Your task to perform on an android device: Show the shopping cart on newegg.com. Search for asus zenbook on newegg.com, select the first entry, add it to the cart, then select checkout. Image 0: 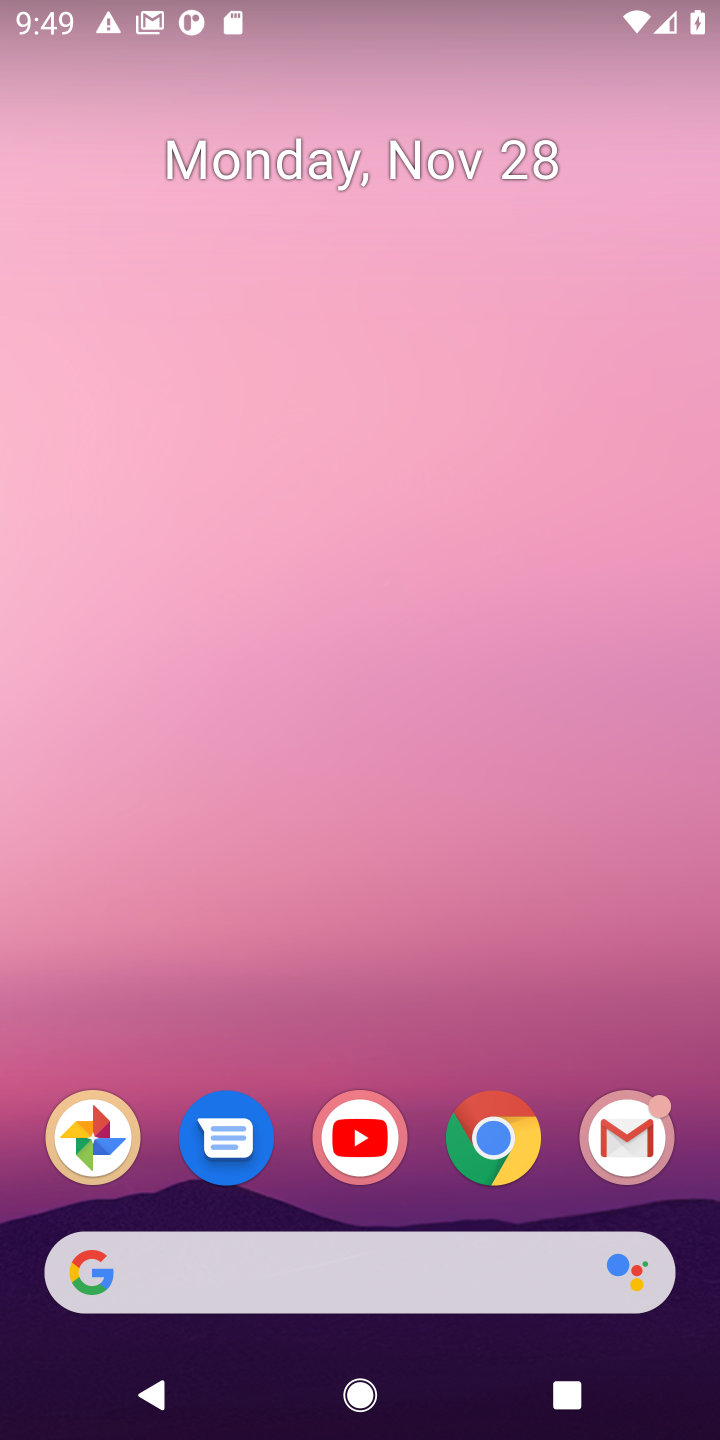
Step 0: click (507, 1143)
Your task to perform on an android device: Show the shopping cart on newegg.com. Search for asus zenbook on newegg.com, select the first entry, add it to the cart, then select checkout. Image 1: 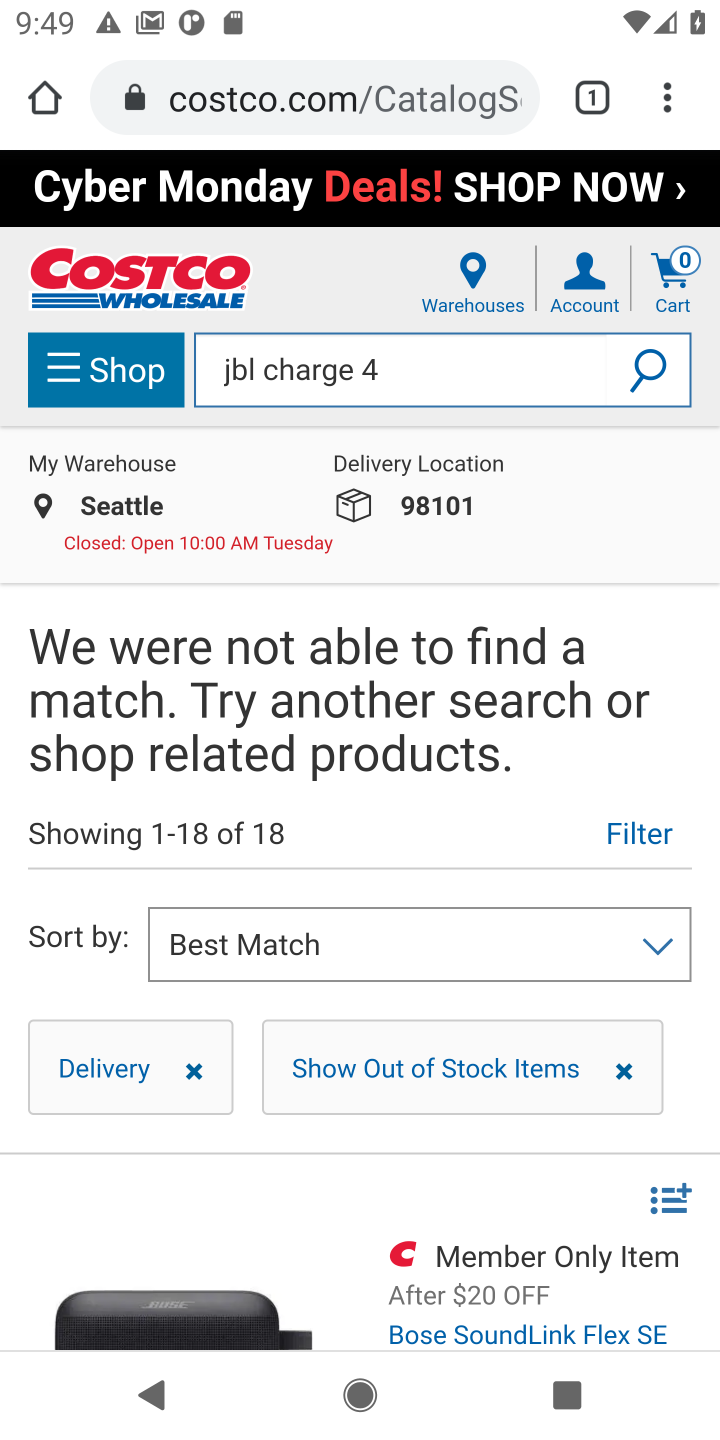
Step 1: click (277, 111)
Your task to perform on an android device: Show the shopping cart on newegg.com. Search for asus zenbook on newegg.com, select the first entry, add it to the cart, then select checkout. Image 2: 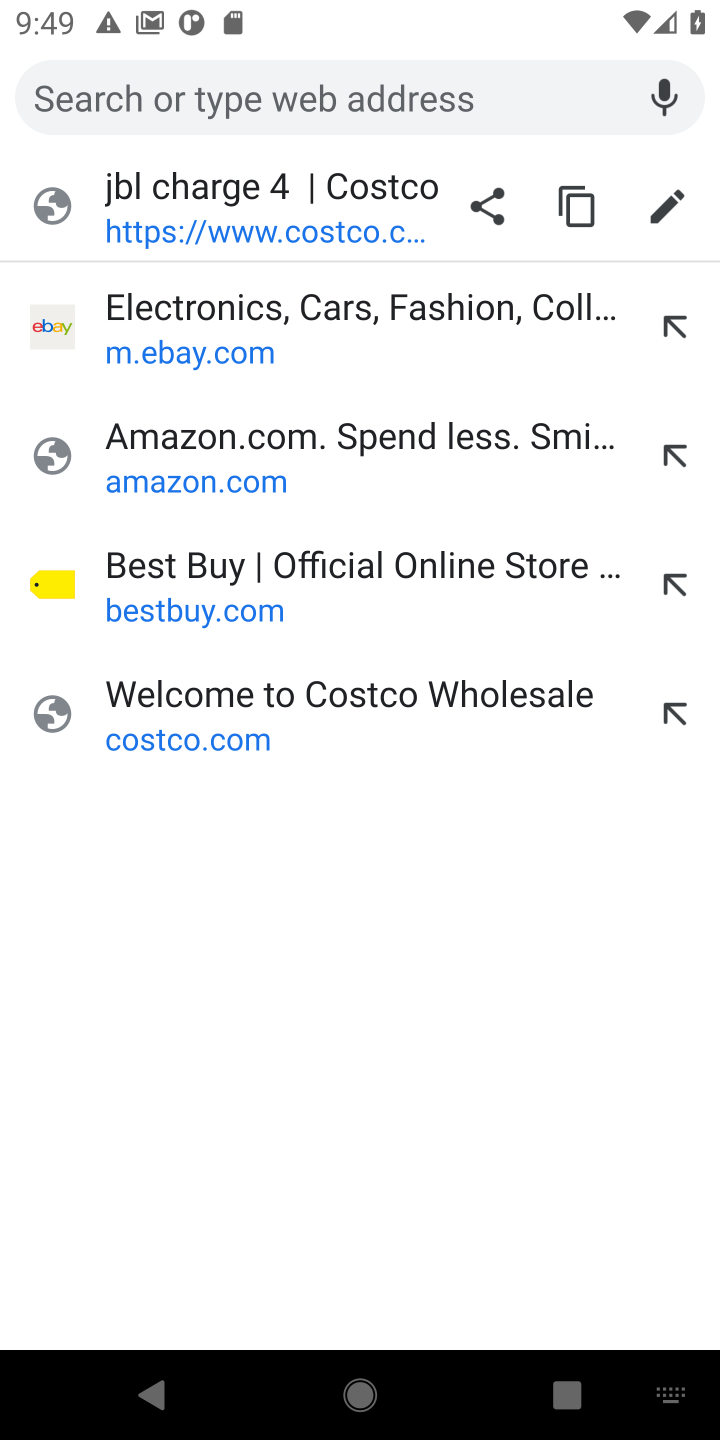
Step 2: type "newegg.com"
Your task to perform on an android device: Show the shopping cart on newegg.com. Search for asus zenbook on newegg.com, select the first entry, add it to the cart, then select checkout. Image 3: 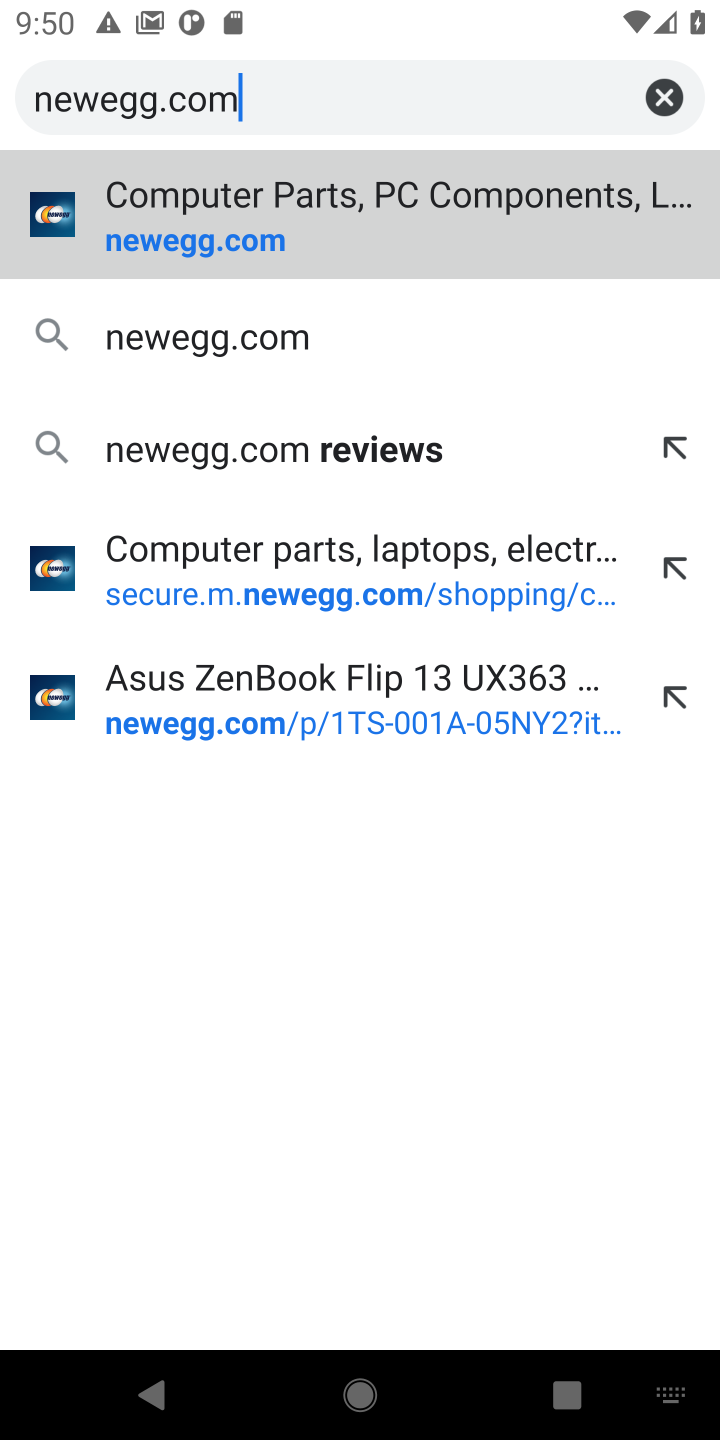
Step 3: click (138, 223)
Your task to perform on an android device: Show the shopping cart on newegg.com. Search for asus zenbook on newegg.com, select the first entry, add it to the cart, then select checkout. Image 4: 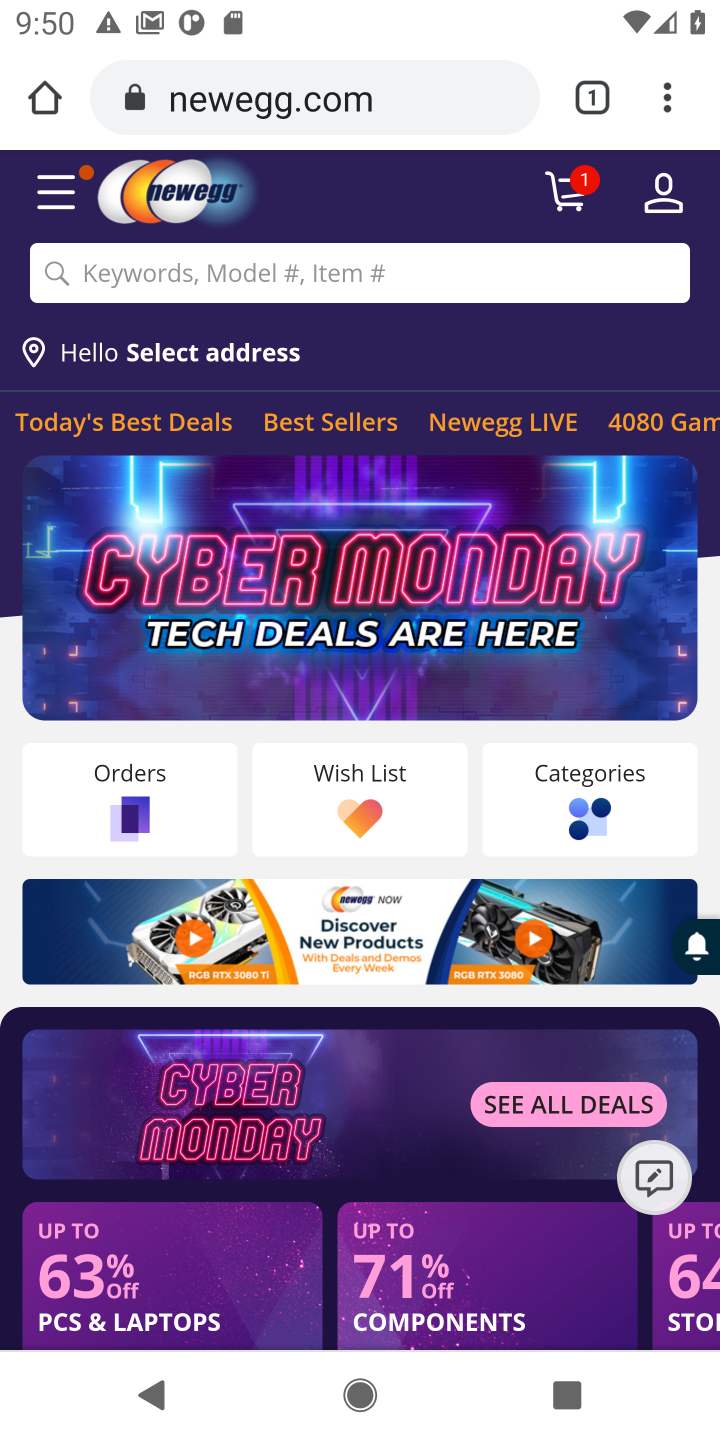
Step 4: click (562, 192)
Your task to perform on an android device: Show the shopping cart on newegg.com. Search for asus zenbook on newegg.com, select the first entry, add it to the cart, then select checkout. Image 5: 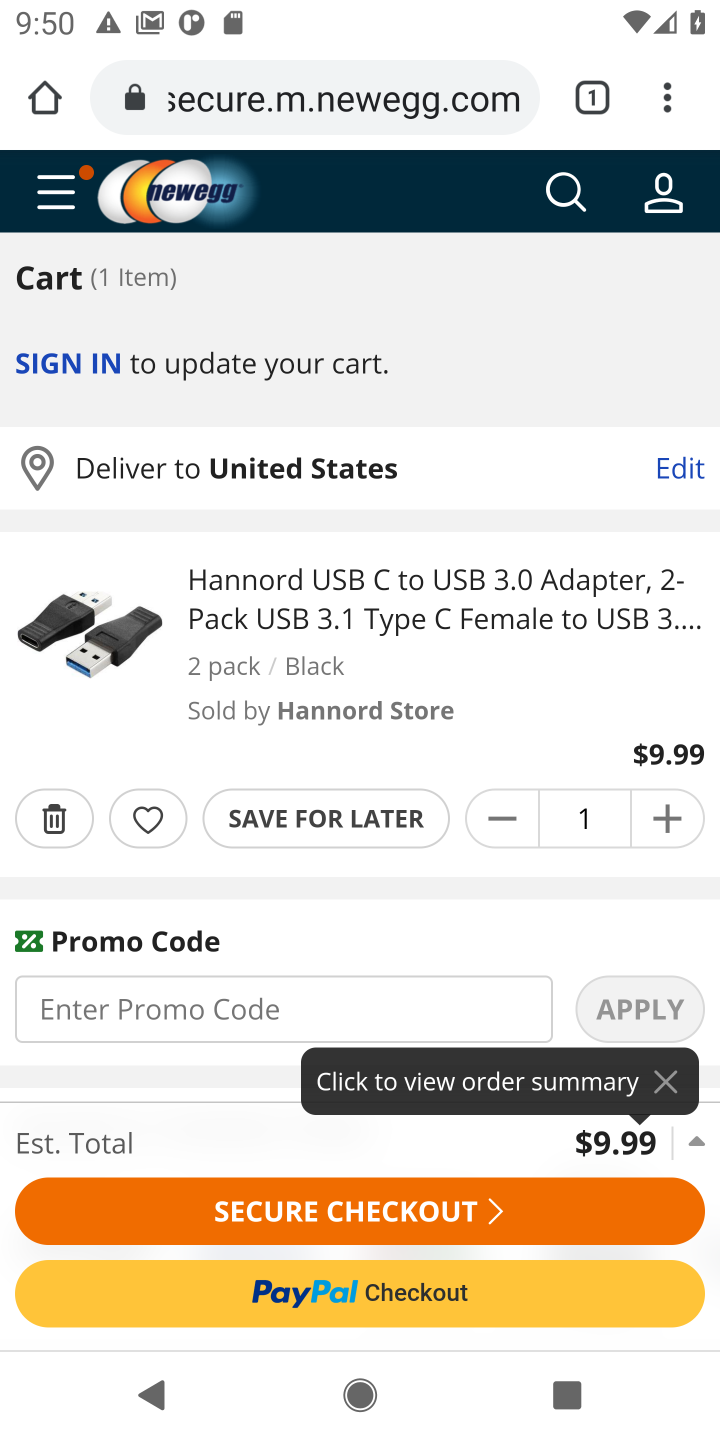
Step 5: click (550, 192)
Your task to perform on an android device: Show the shopping cart on newegg.com. Search for asus zenbook on newegg.com, select the first entry, add it to the cart, then select checkout. Image 6: 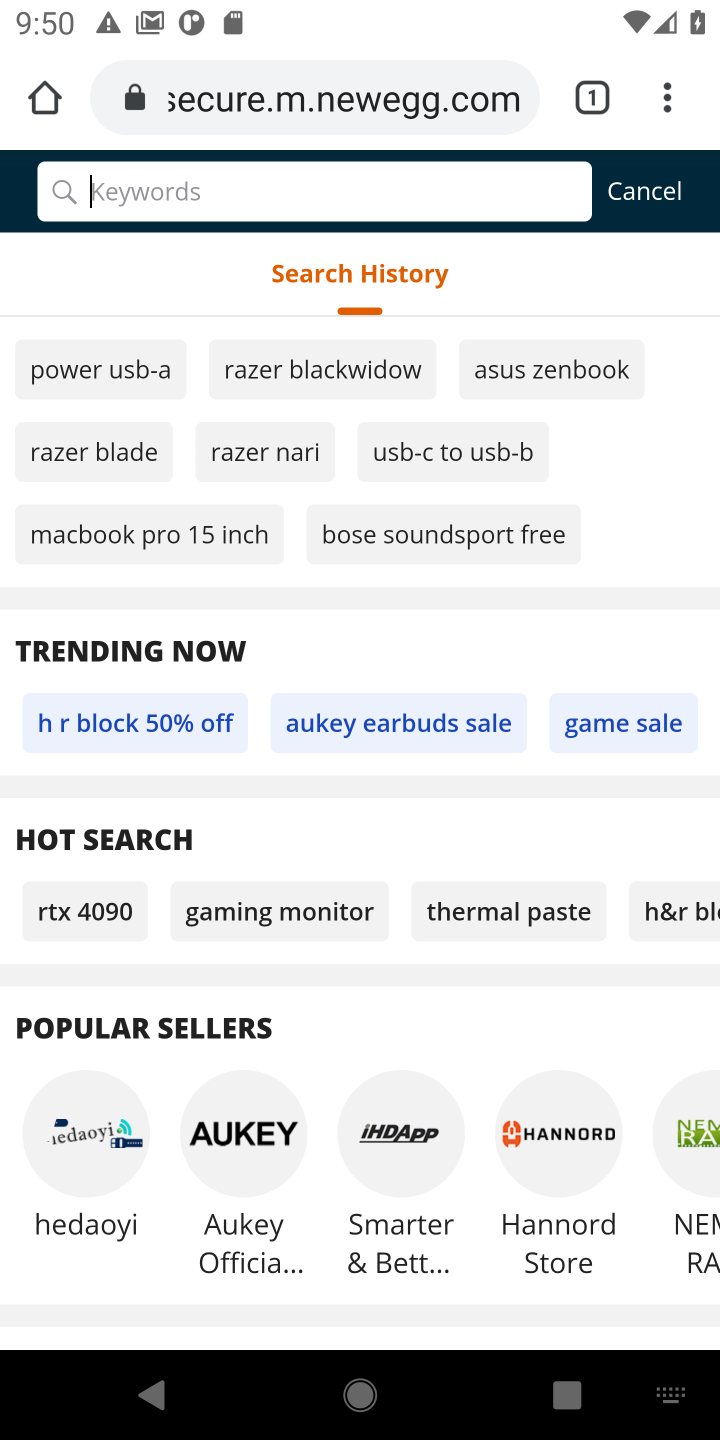
Step 6: type "asus zenbook"
Your task to perform on an android device: Show the shopping cart on newegg.com. Search for asus zenbook on newegg.com, select the first entry, add it to the cart, then select checkout. Image 7: 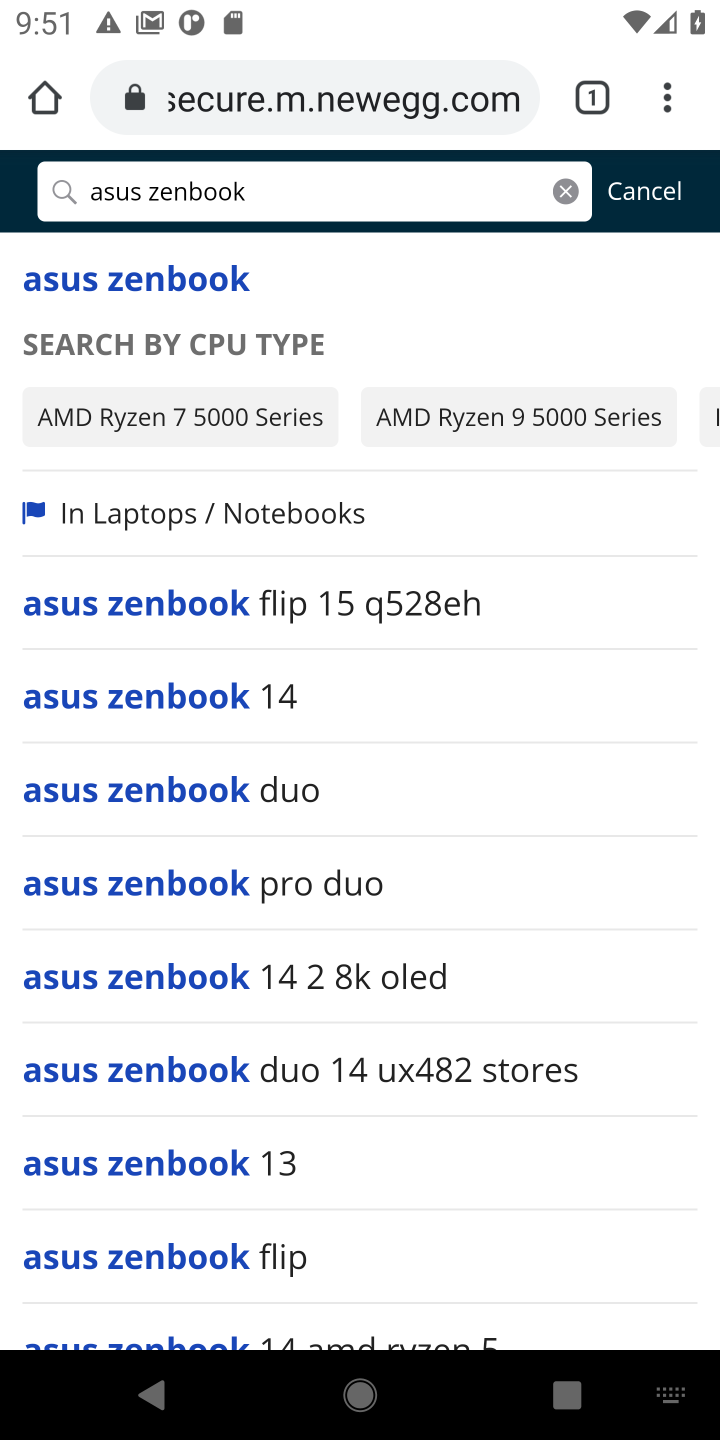
Step 7: drag from (93, 54) to (210, 128)
Your task to perform on an android device: Show the shopping cart on newegg.com. Search for asus zenbook on newegg.com, select the first entry, add it to the cart, then select checkout. Image 8: 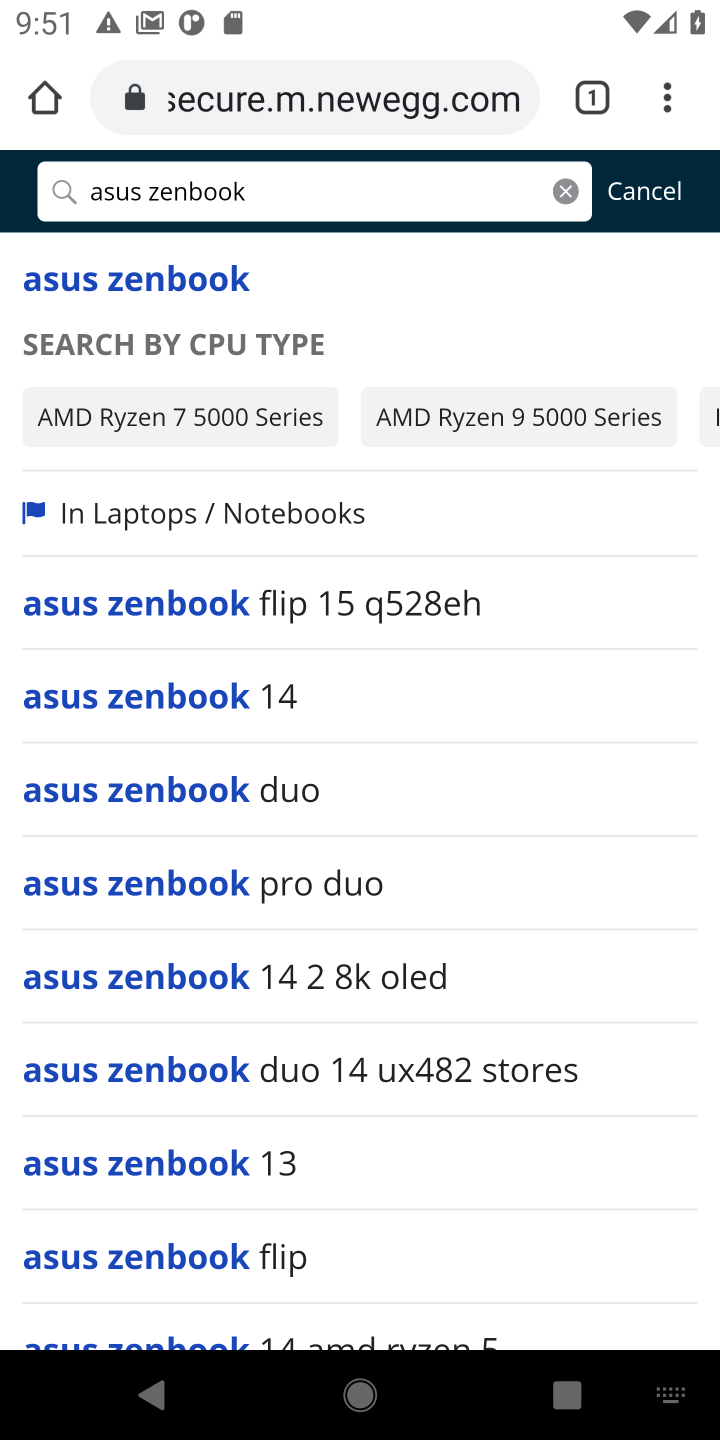
Step 8: click (153, 272)
Your task to perform on an android device: Show the shopping cart on newegg.com. Search for asus zenbook on newegg.com, select the first entry, add it to the cart, then select checkout. Image 9: 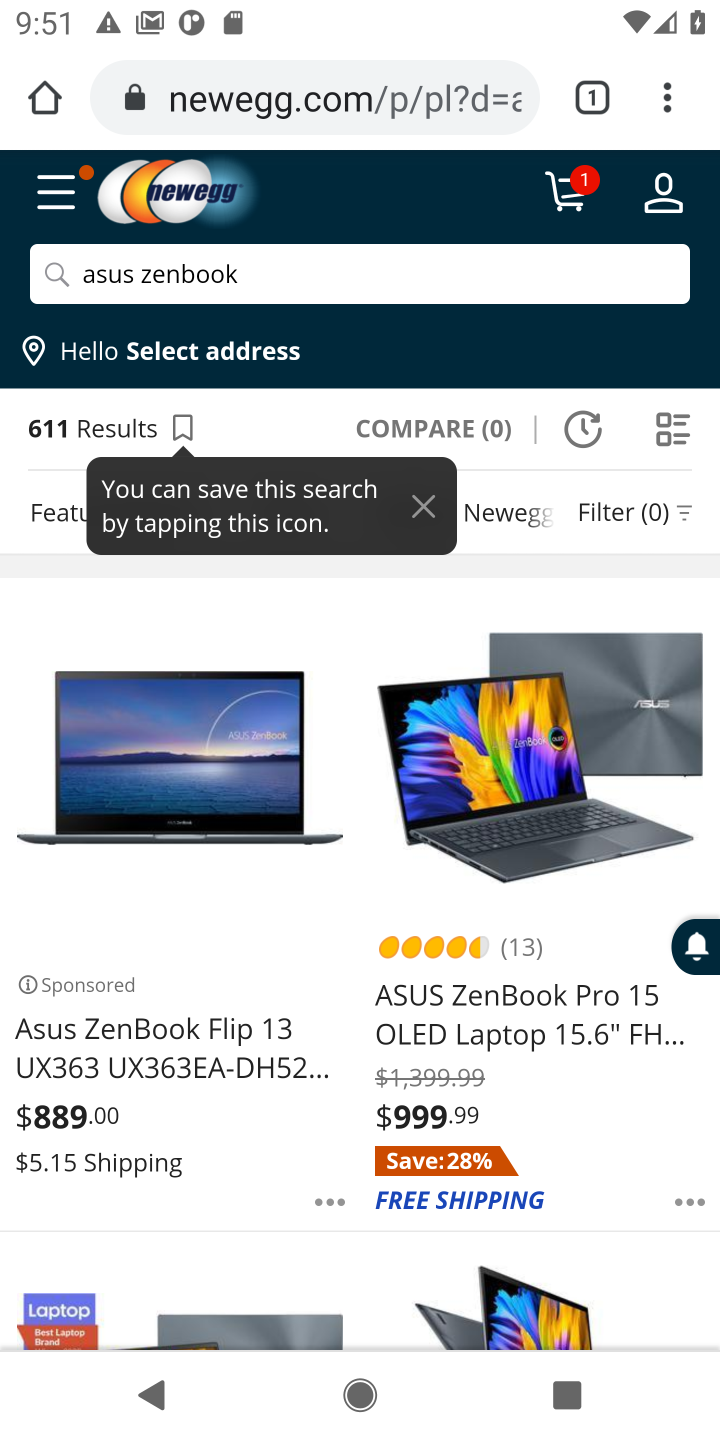
Step 9: click (159, 1041)
Your task to perform on an android device: Show the shopping cart on newegg.com. Search for asus zenbook on newegg.com, select the first entry, add it to the cart, then select checkout. Image 10: 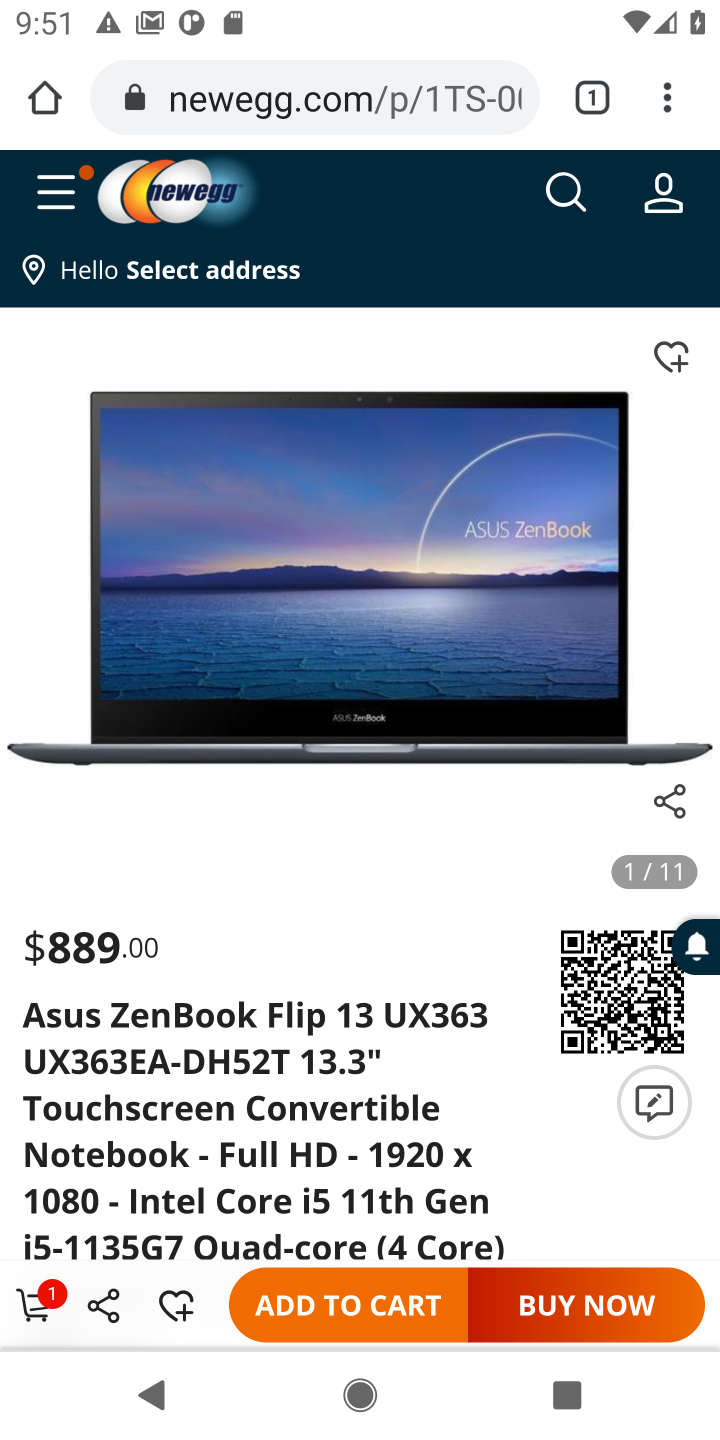
Step 10: click (367, 1293)
Your task to perform on an android device: Show the shopping cart on newegg.com. Search for asus zenbook on newegg.com, select the first entry, add it to the cart, then select checkout. Image 11: 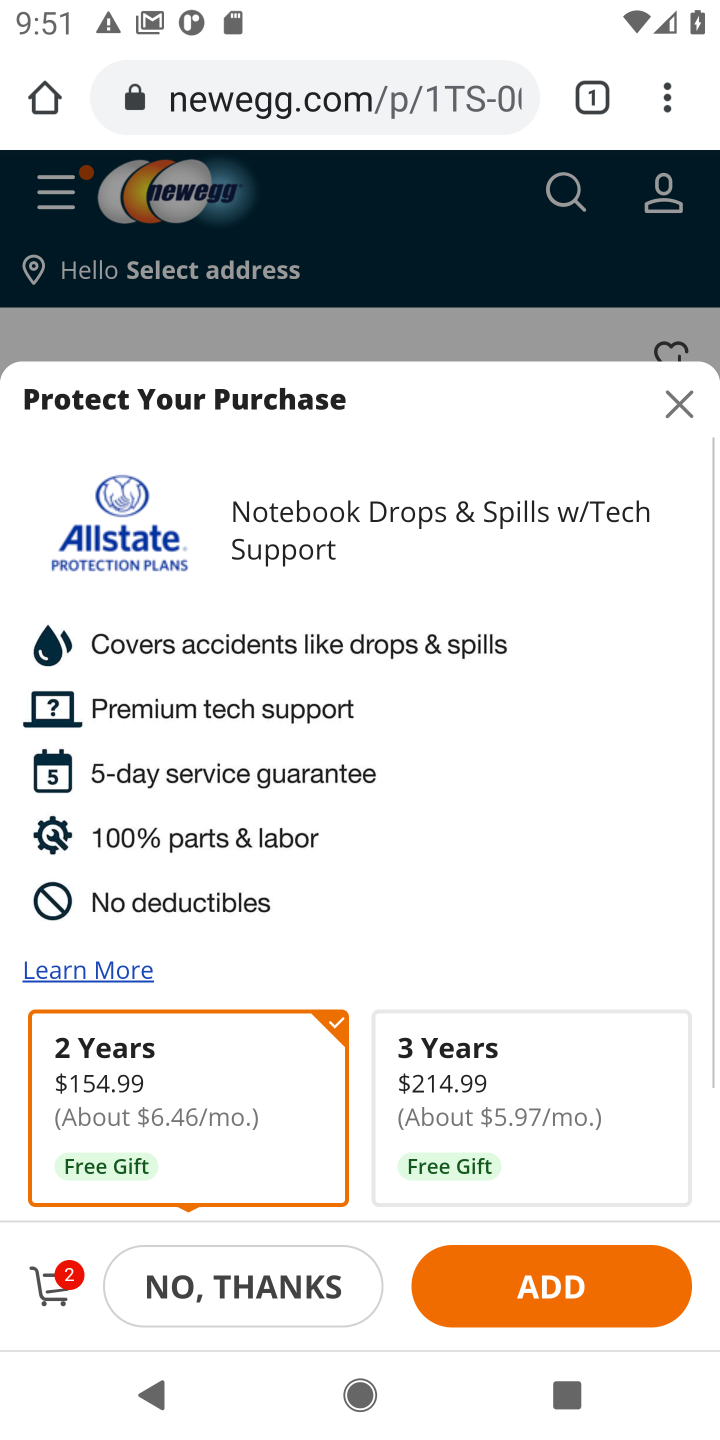
Step 11: click (45, 1290)
Your task to perform on an android device: Show the shopping cart on newegg.com. Search for asus zenbook on newegg.com, select the first entry, add it to the cart, then select checkout. Image 12: 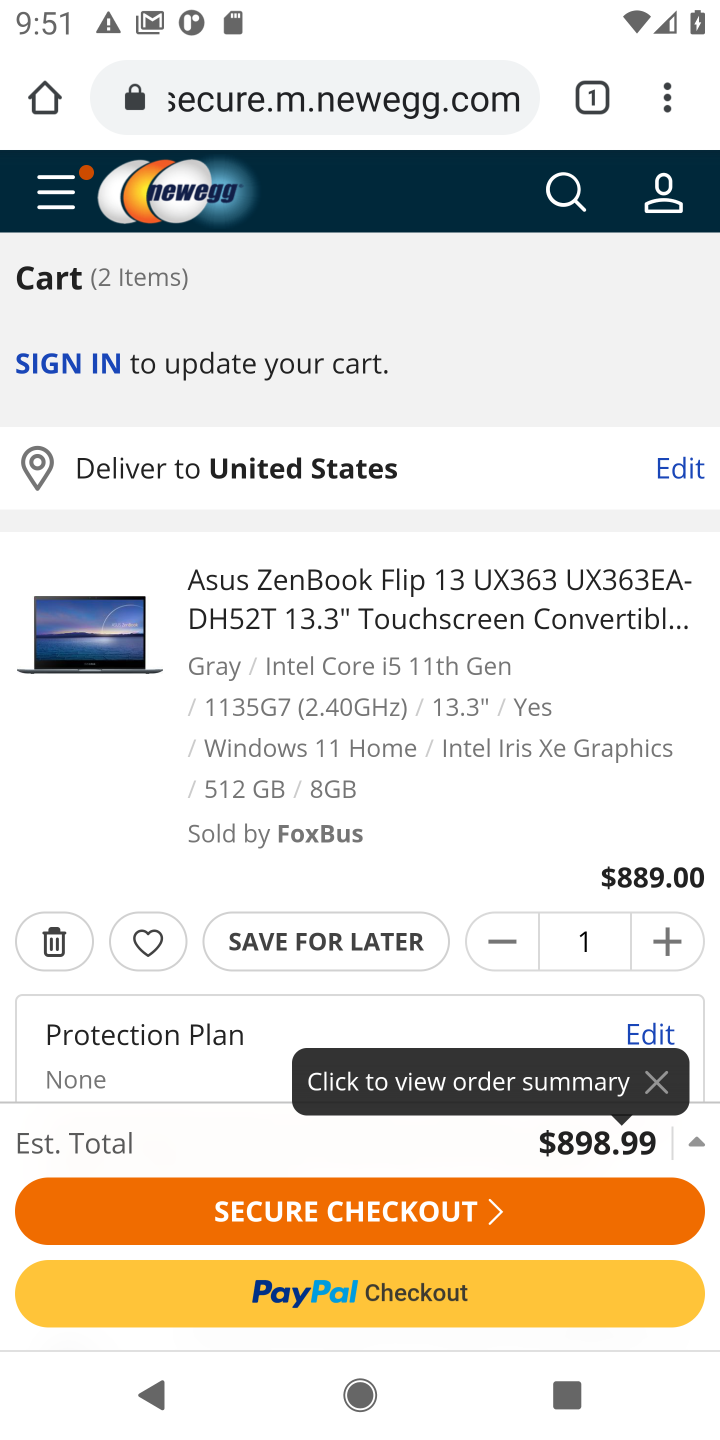
Step 12: click (338, 1210)
Your task to perform on an android device: Show the shopping cart on newegg.com. Search for asus zenbook on newegg.com, select the first entry, add it to the cart, then select checkout. Image 13: 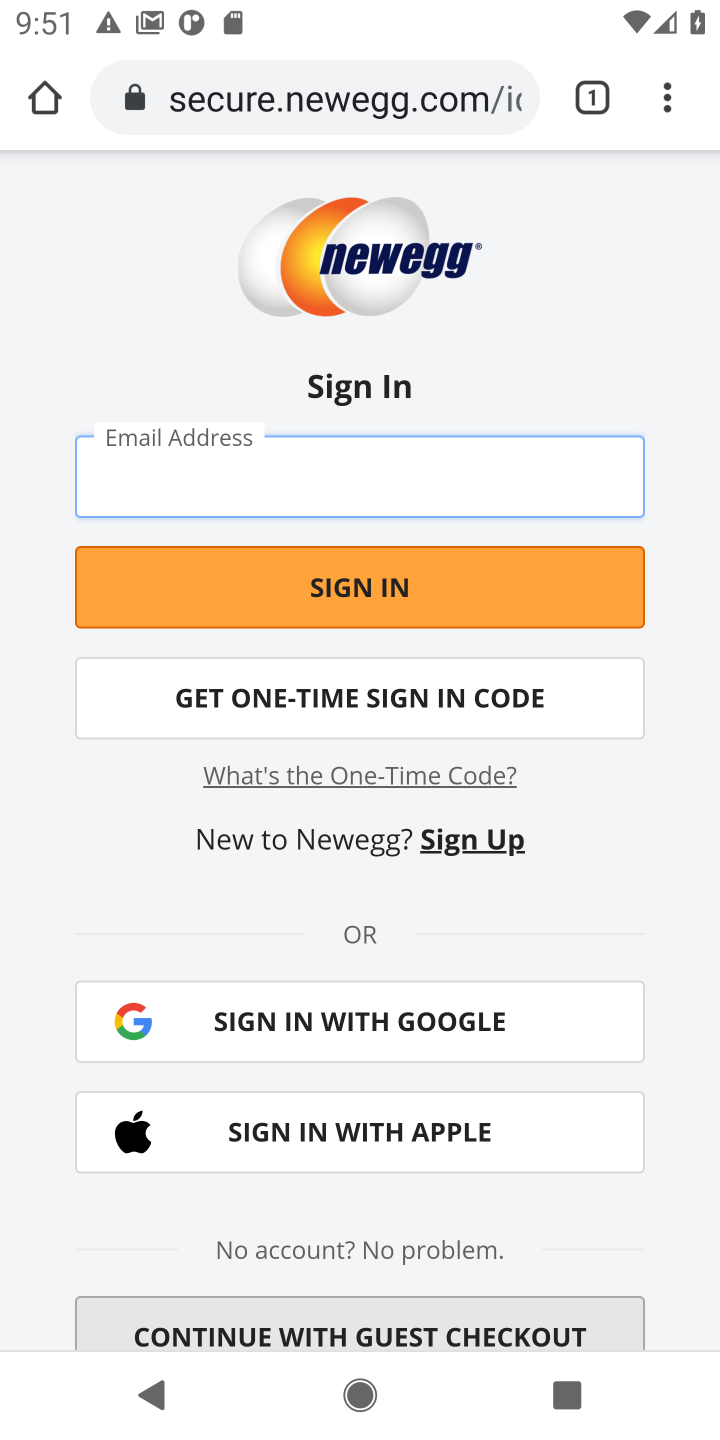
Step 13: task complete